Your task to perform on an android device: check battery use Image 0: 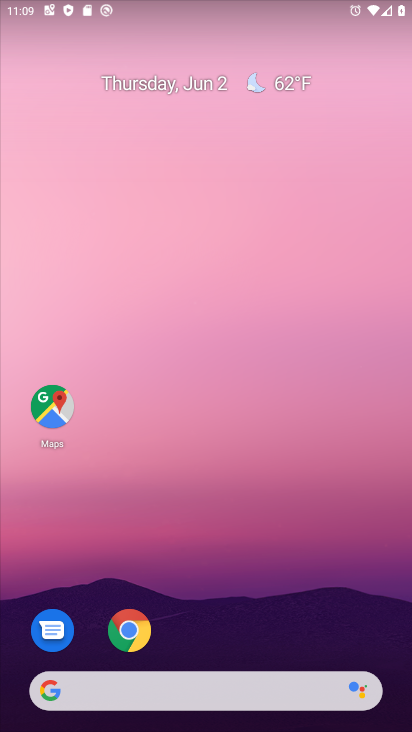
Step 0: drag from (136, 702) to (273, 91)
Your task to perform on an android device: check battery use Image 1: 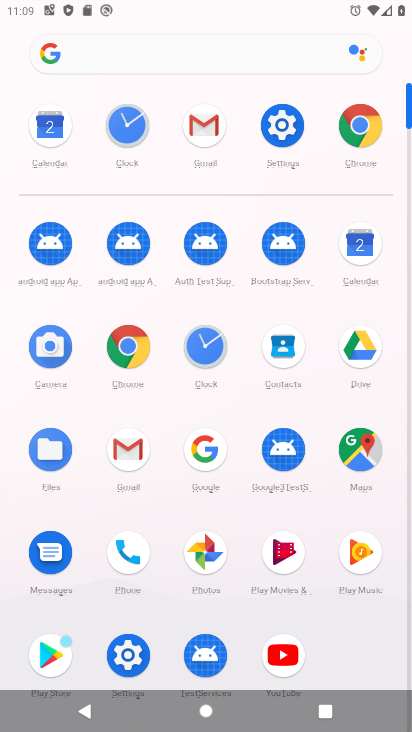
Step 1: click (282, 118)
Your task to perform on an android device: check battery use Image 2: 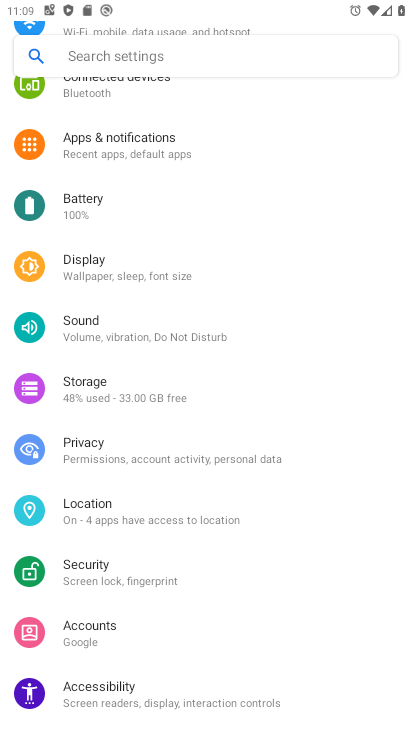
Step 2: click (83, 208)
Your task to perform on an android device: check battery use Image 3: 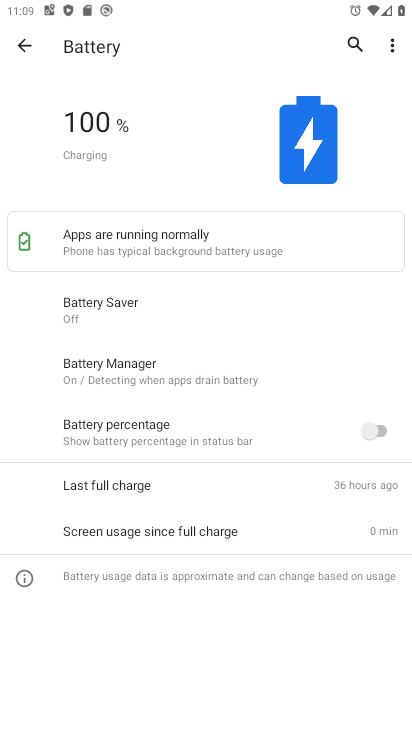
Step 3: click (393, 47)
Your task to perform on an android device: check battery use Image 4: 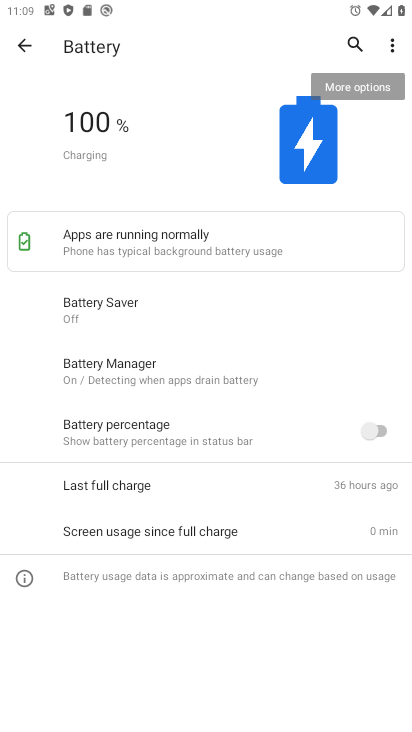
Step 4: click (389, 42)
Your task to perform on an android device: check battery use Image 5: 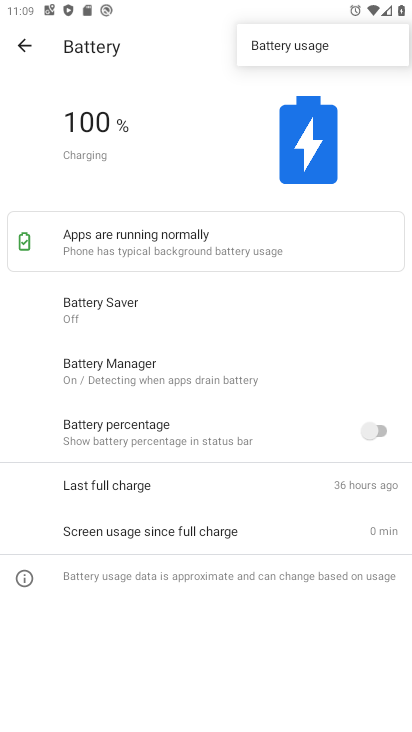
Step 5: click (304, 44)
Your task to perform on an android device: check battery use Image 6: 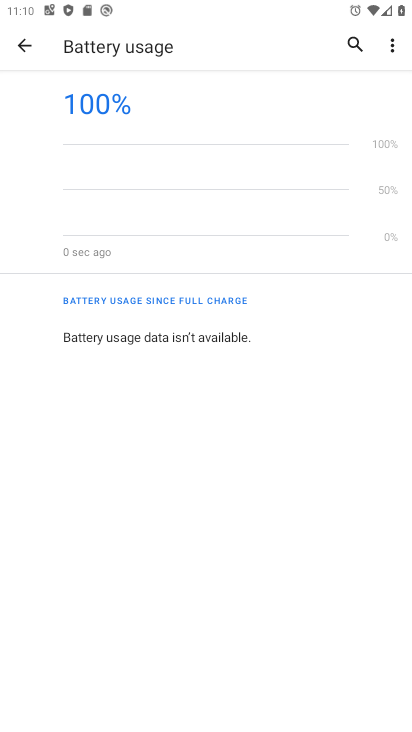
Step 6: task complete